Your task to perform on an android device: Go to CNN.com Image 0: 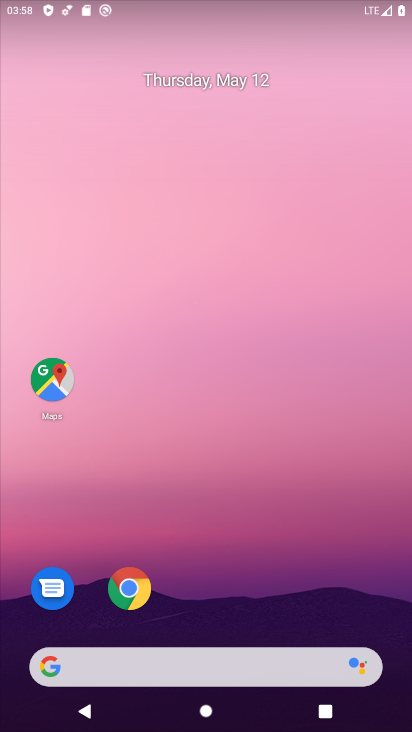
Step 0: drag from (193, 590) to (222, 175)
Your task to perform on an android device: Go to CNN.com Image 1: 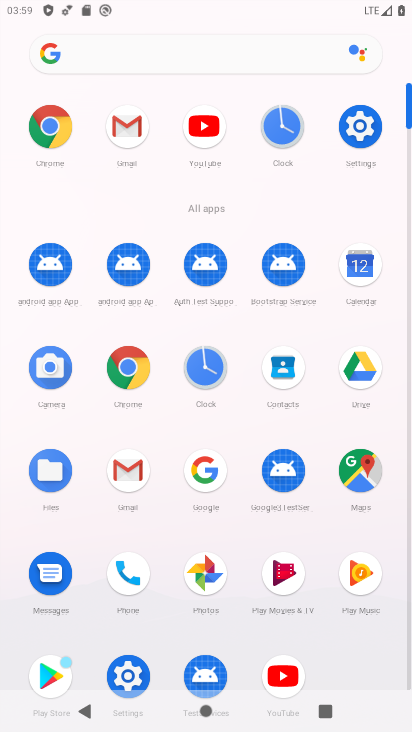
Step 1: click (127, 368)
Your task to perform on an android device: Go to CNN.com Image 2: 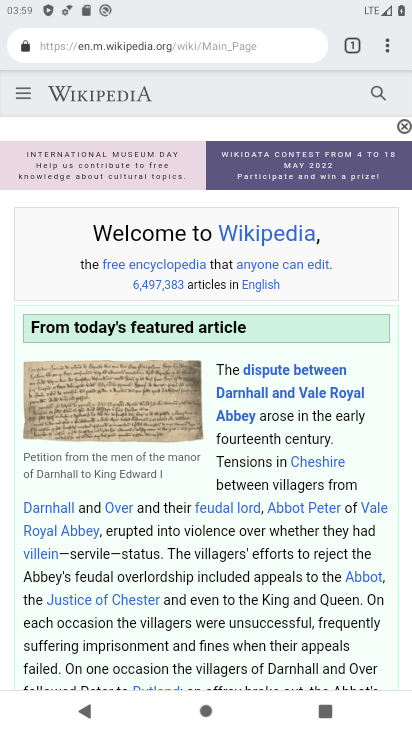
Step 2: click (203, 50)
Your task to perform on an android device: Go to CNN.com Image 3: 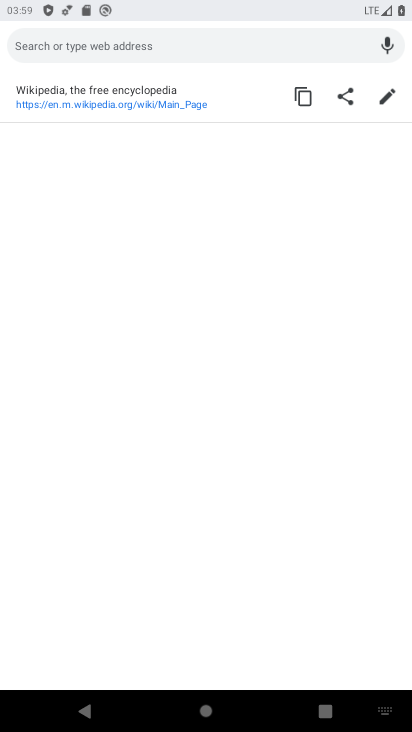
Step 3: type "cnn"
Your task to perform on an android device: Go to CNN.com Image 4: 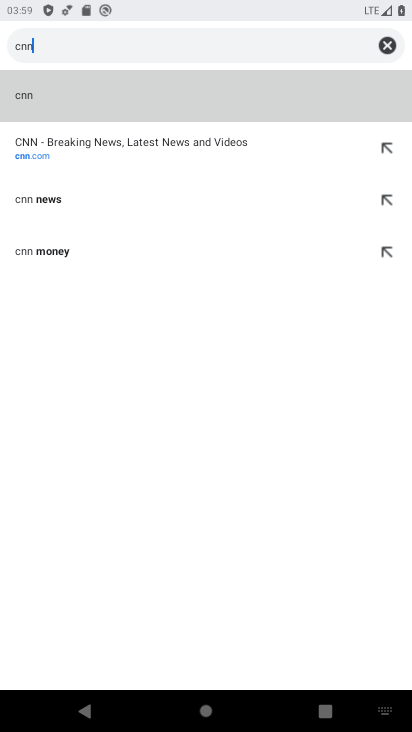
Step 4: click (61, 146)
Your task to perform on an android device: Go to CNN.com Image 5: 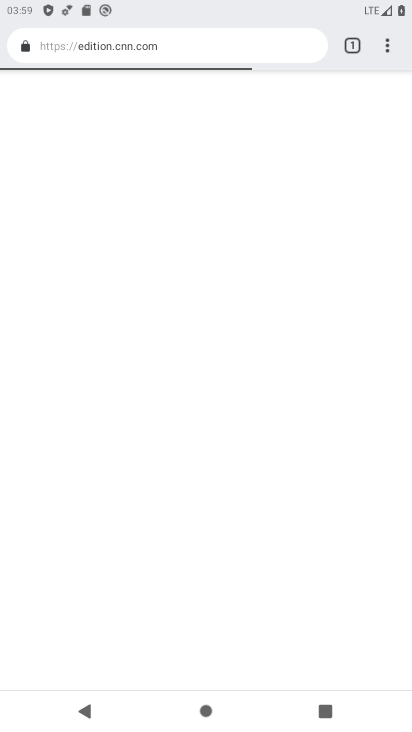
Step 5: task complete